Your task to perform on an android device: Add macbook pro 13 inch to the cart on walmart.com Image 0: 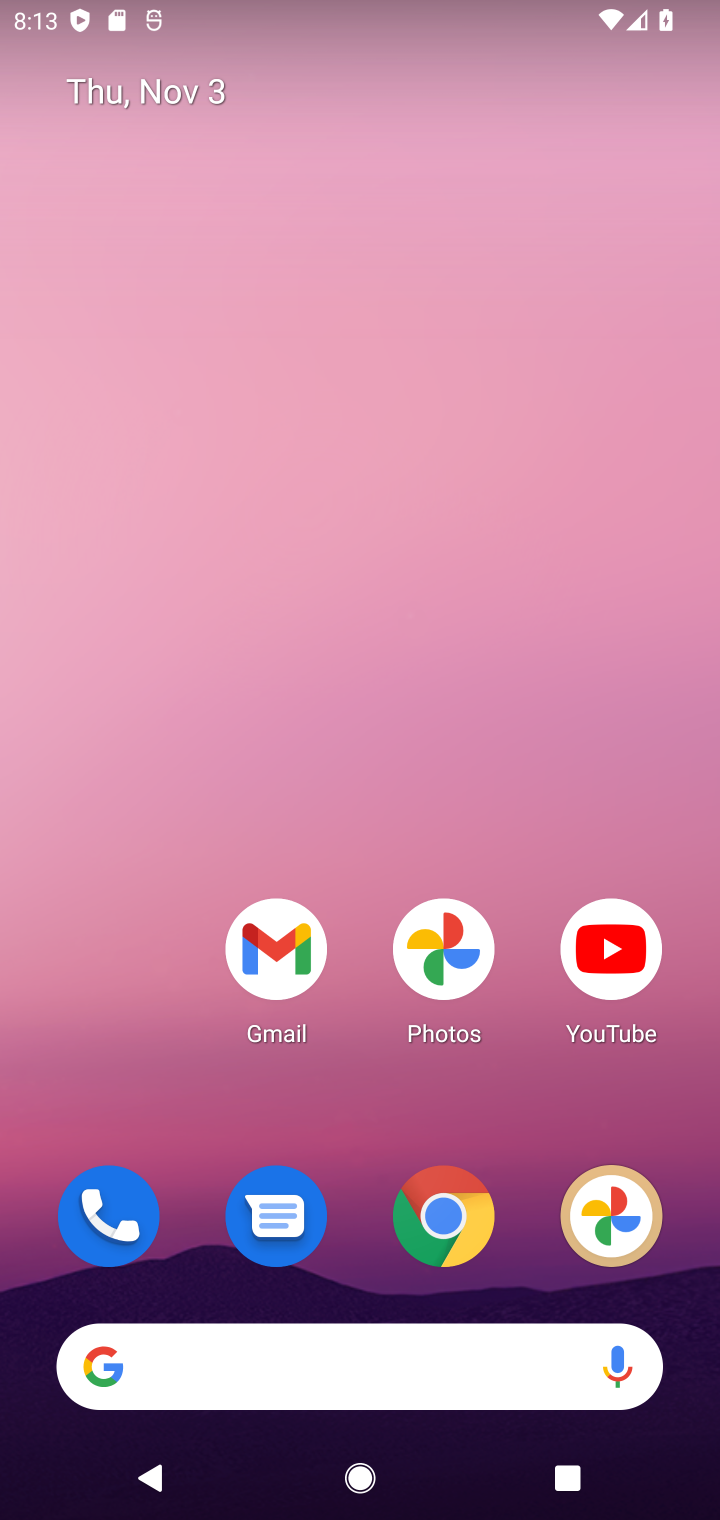
Step 0: click (447, 1240)
Your task to perform on an android device: Add macbook pro 13 inch to the cart on walmart.com Image 1: 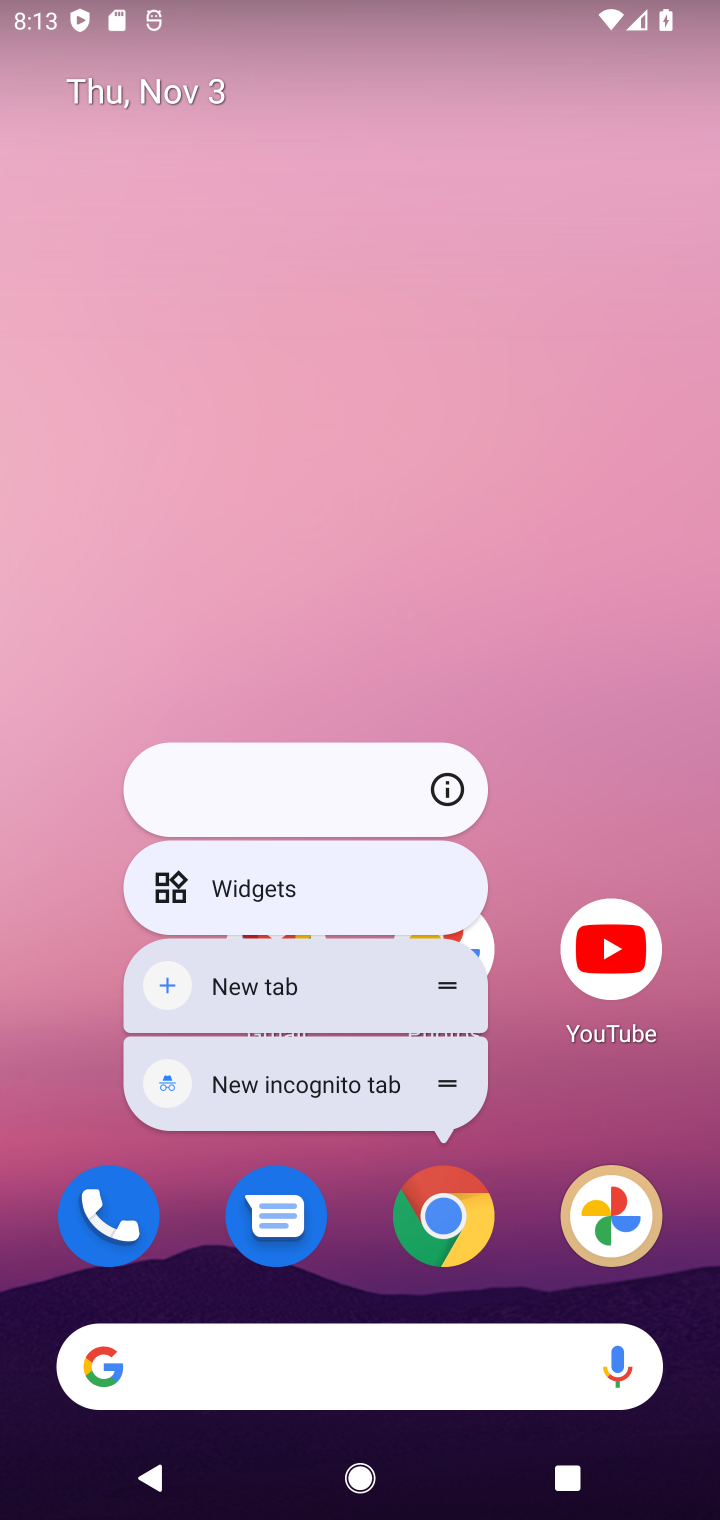
Step 1: click (459, 1239)
Your task to perform on an android device: Add macbook pro 13 inch to the cart on walmart.com Image 2: 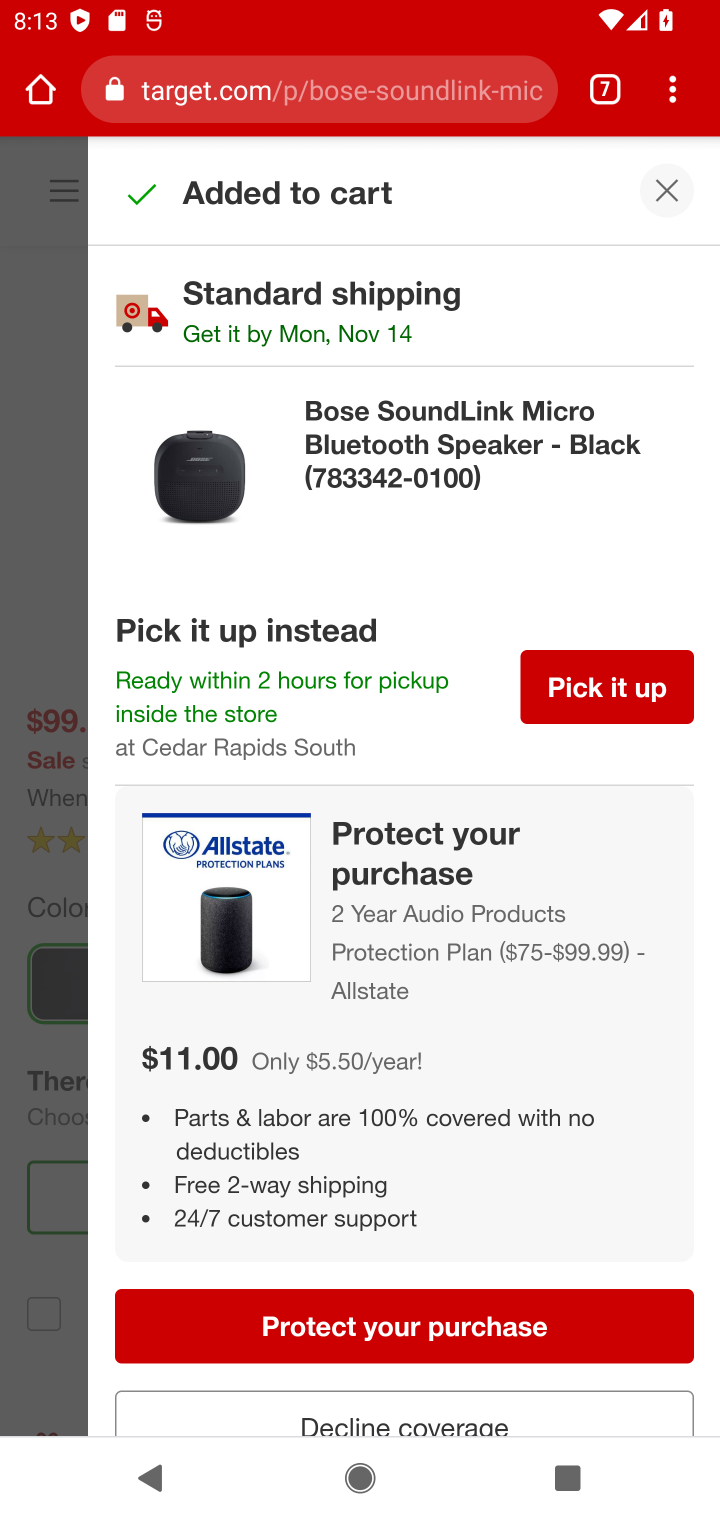
Step 2: click (600, 78)
Your task to perform on an android device: Add macbook pro 13 inch to the cart on walmart.com Image 3: 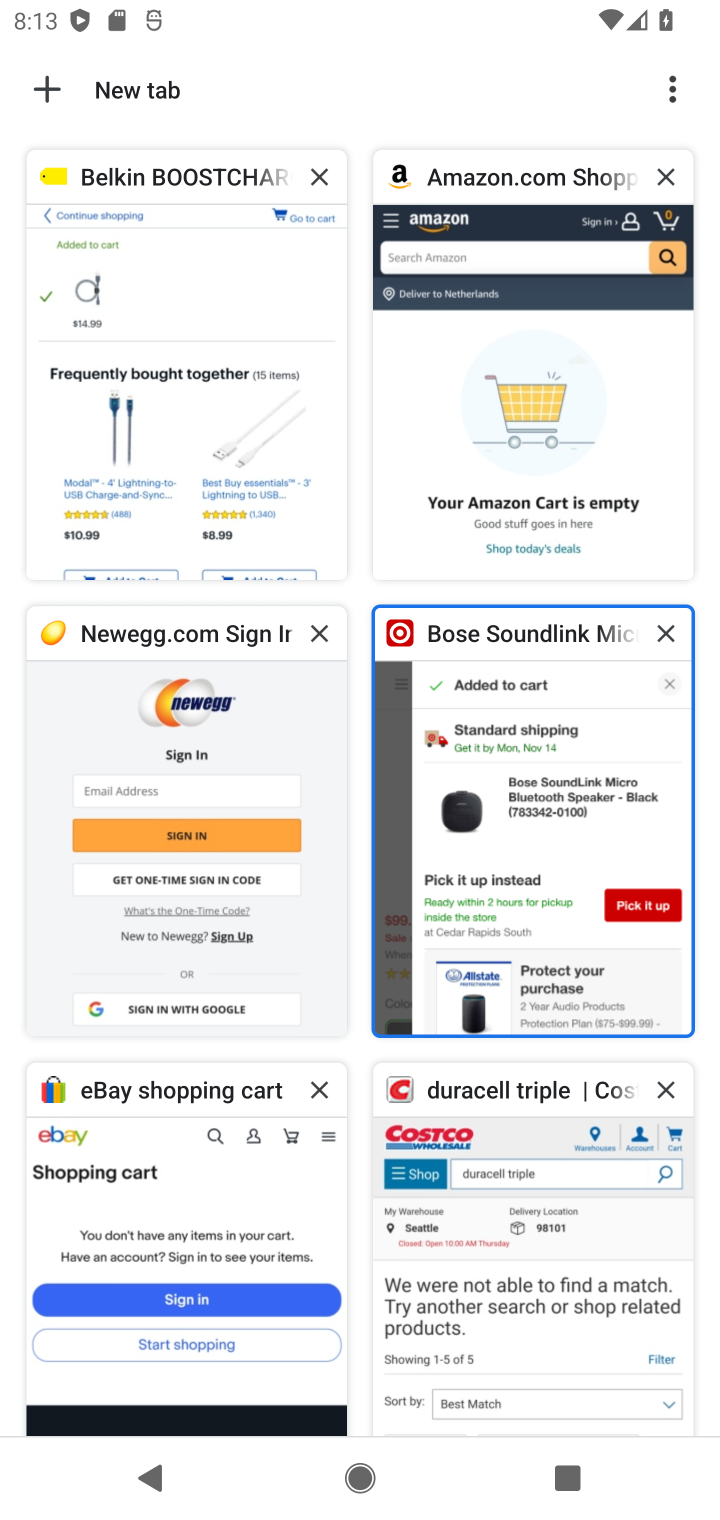
Step 3: drag from (358, 1306) to (290, 731)
Your task to perform on an android device: Add macbook pro 13 inch to the cart on walmart.com Image 4: 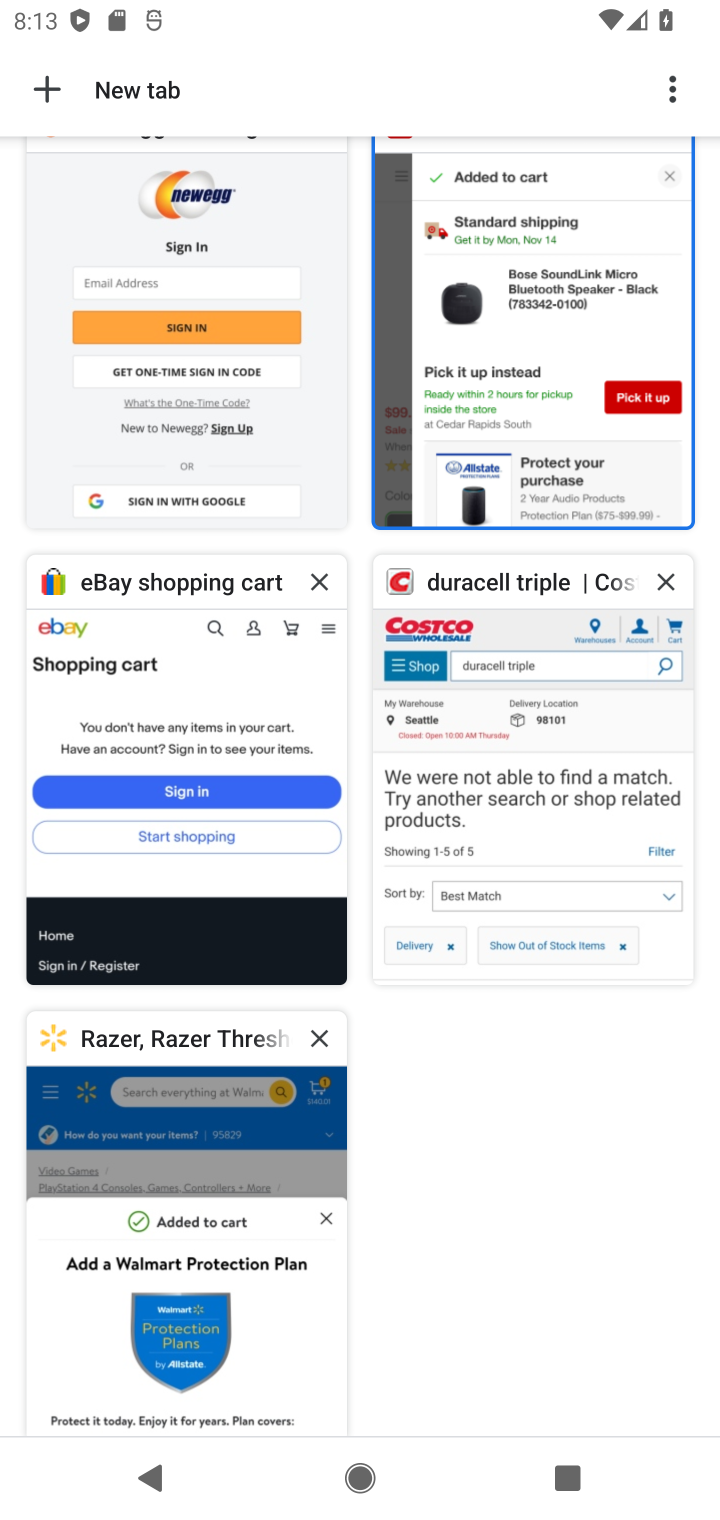
Step 4: click (198, 1184)
Your task to perform on an android device: Add macbook pro 13 inch to the cart on walmart.com Image 5: 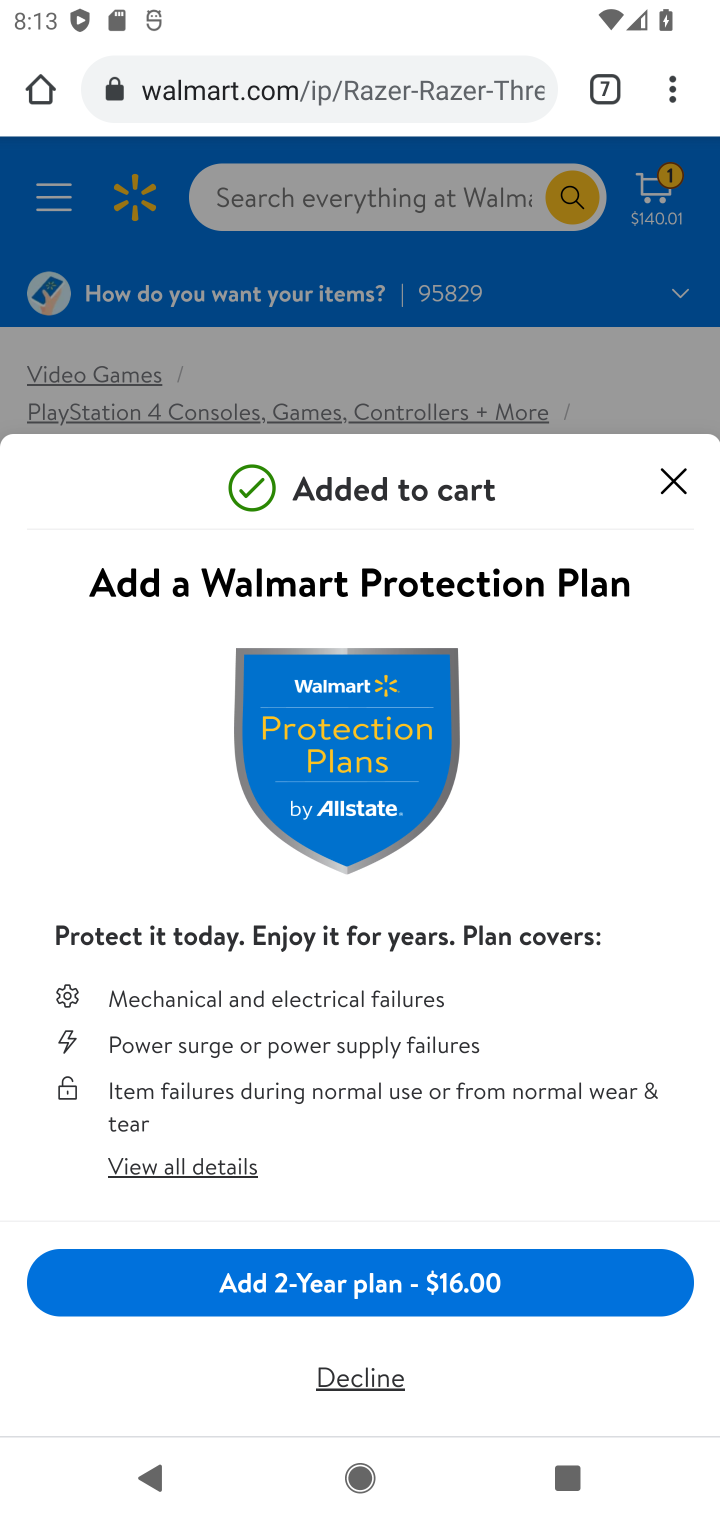
Step 5: click (473, 193)
Your task to perform on an android device: Add macbook pro 13 inch to the cart on walmart.com Image 6: 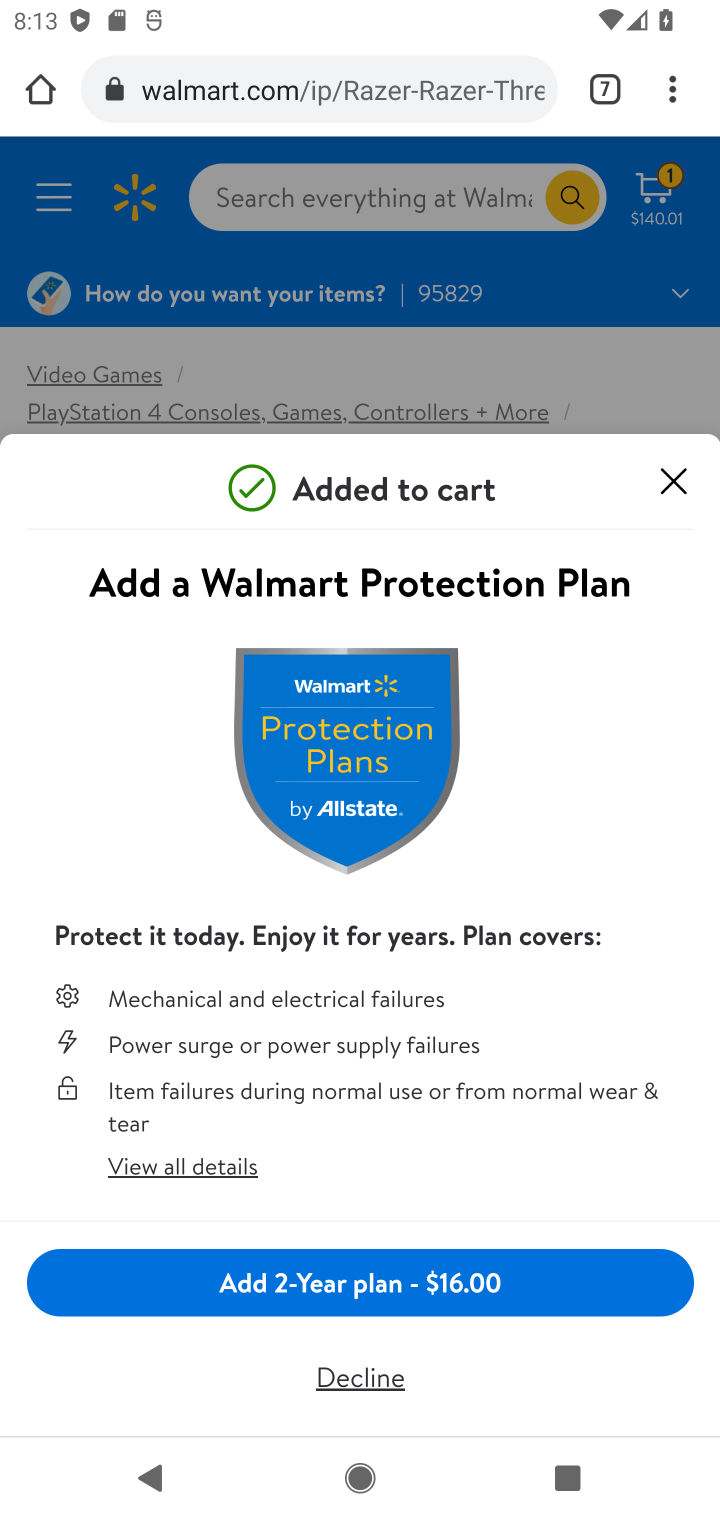
Step 6: click (675, 480)
Your task to perform on an android device: Add macbook pro 13 inch to the cart on walmart.com Image 7: 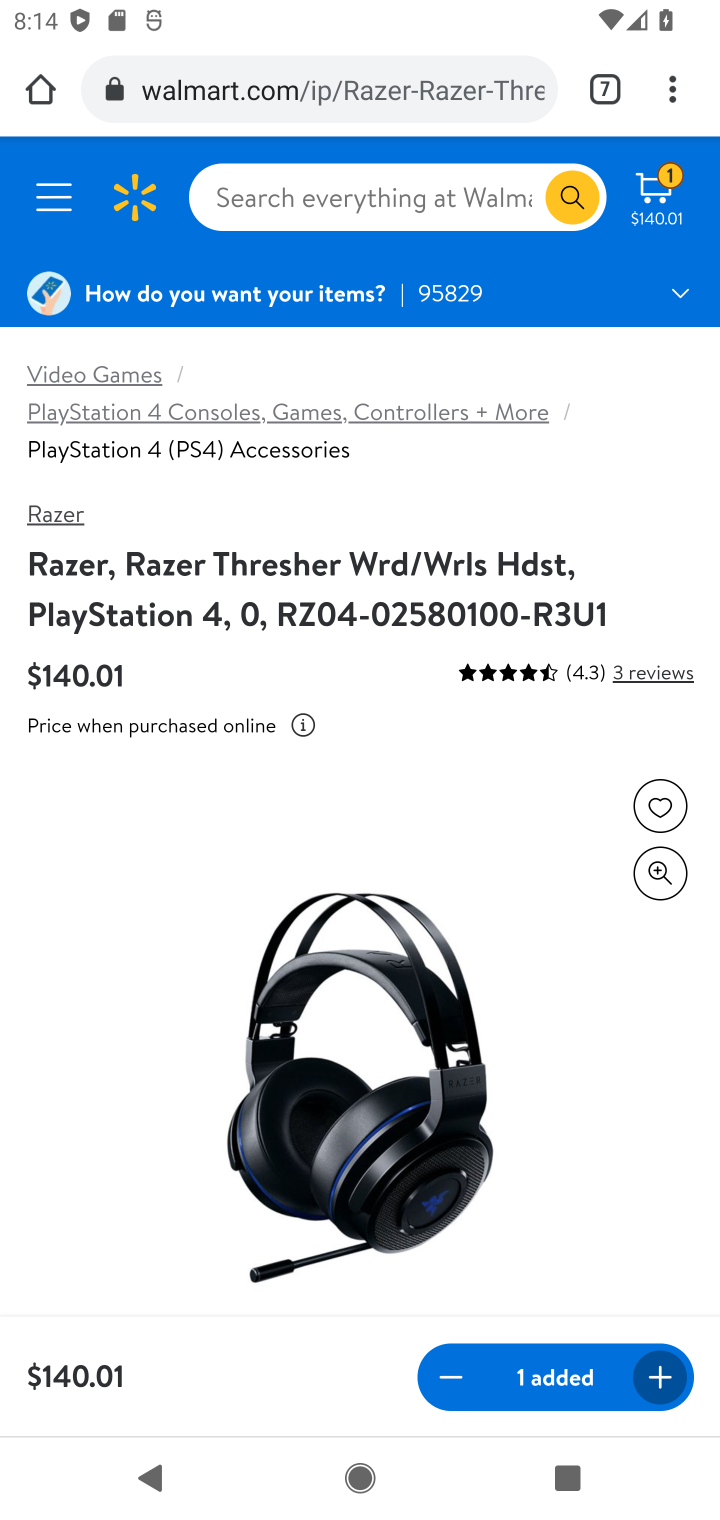
Step 7: click (365, 211)
Your task to perform on an android device: Add macbook pro 13 inch to the cart on walmart.com Image 8: 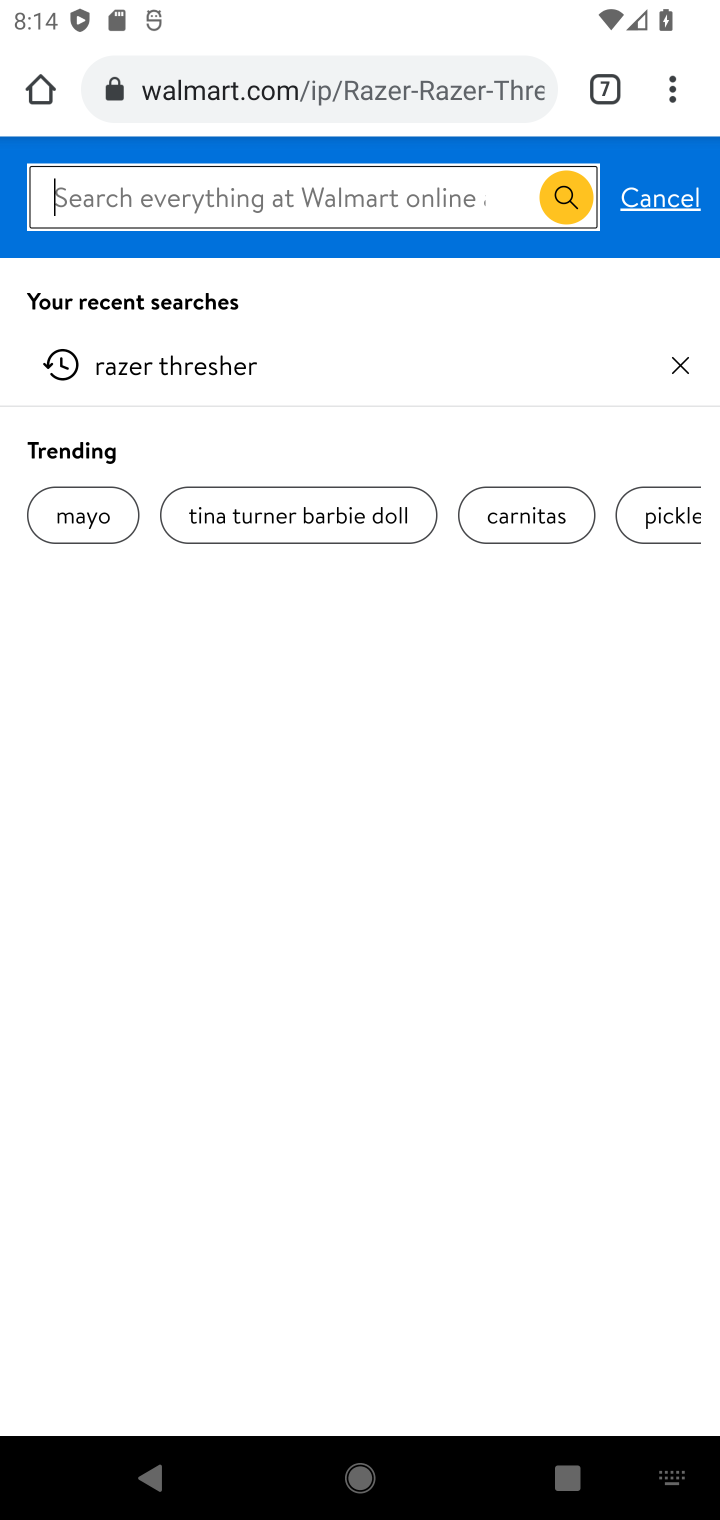
Step 8: type "macbook pro 13 inch "
Your task to perform on an android device: Add macbook pro 13 inch to the cart on walmart.com Image 9: 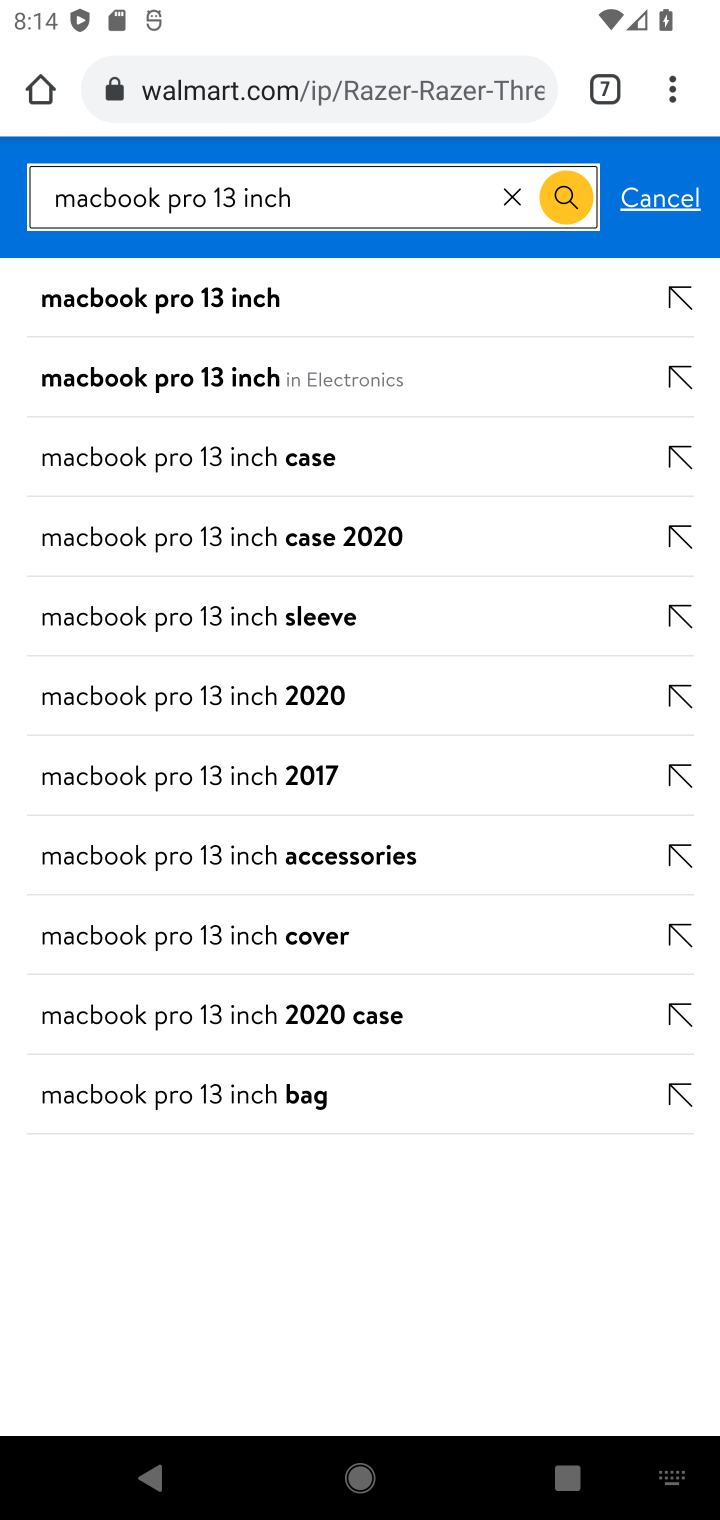
Step 9: click (236, 305)
Your task to perform on an android device: Add macbook pro 13 inch to the cart on walmart.com Image 10: 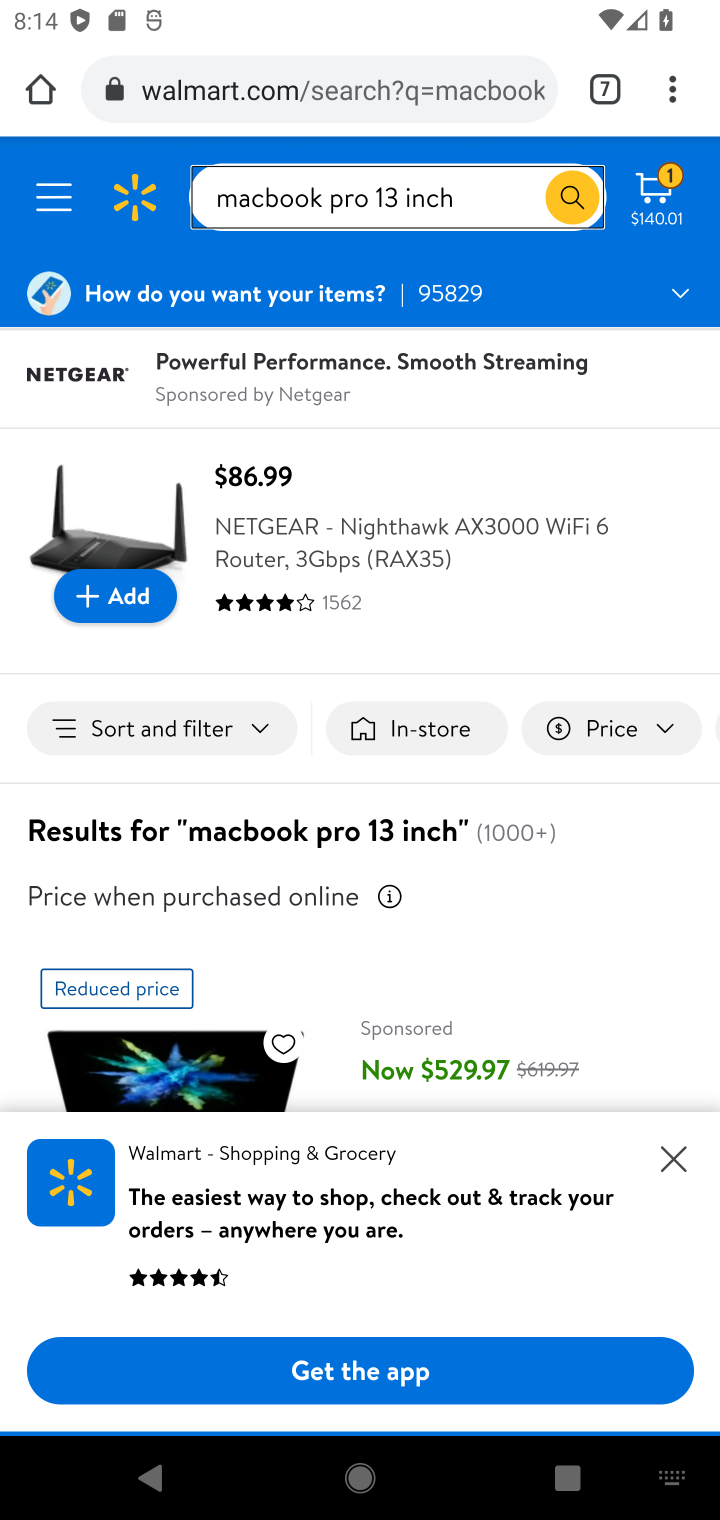
Step 10: drag from (396, 1073) to (340, 688)
Your task to perform on an android device: Add macbook pro 13 inch to the cart on walmart.com Image 11: 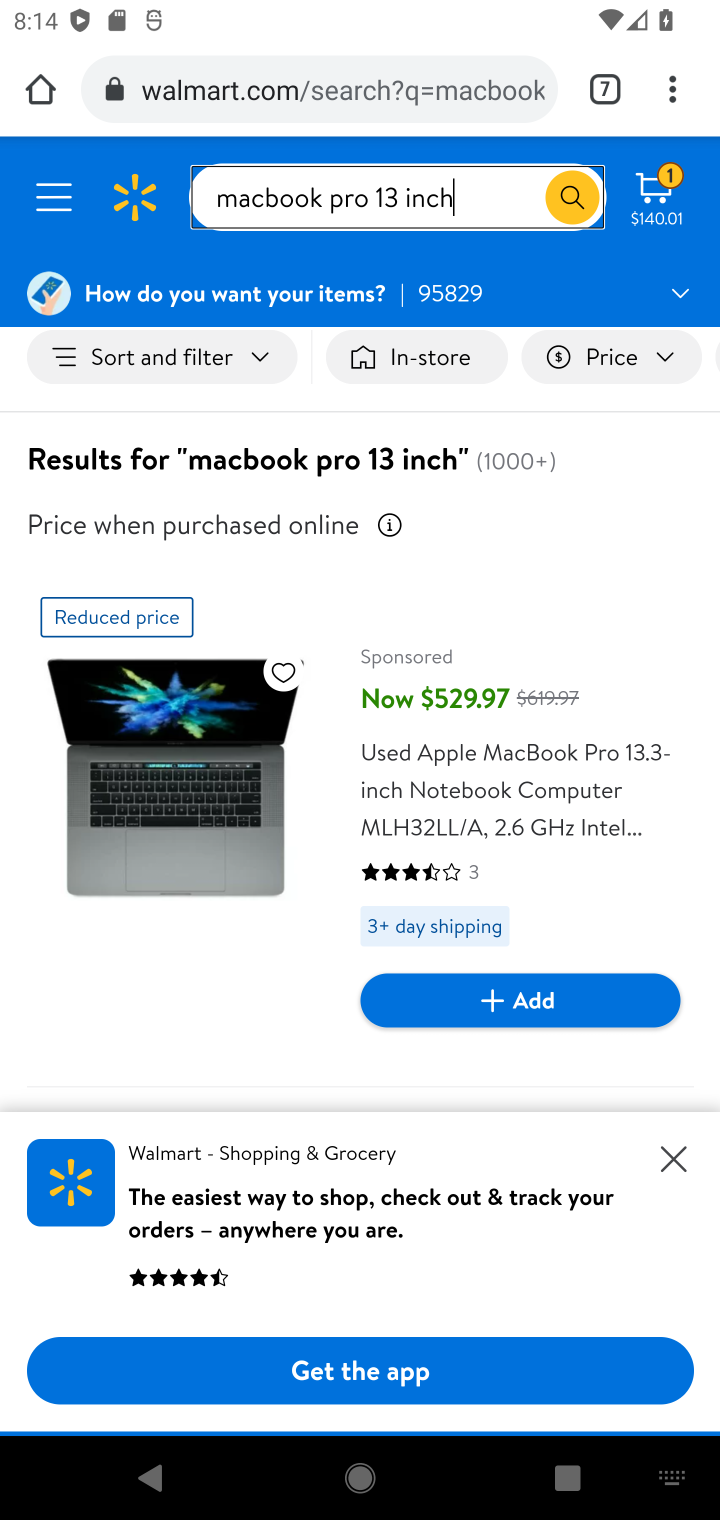
Step 11: drag from (241, 1026) to (182, 648)
Your task to perform on an android device: Add macbook pro 13 inch to the cart on walmart.com Image 12: 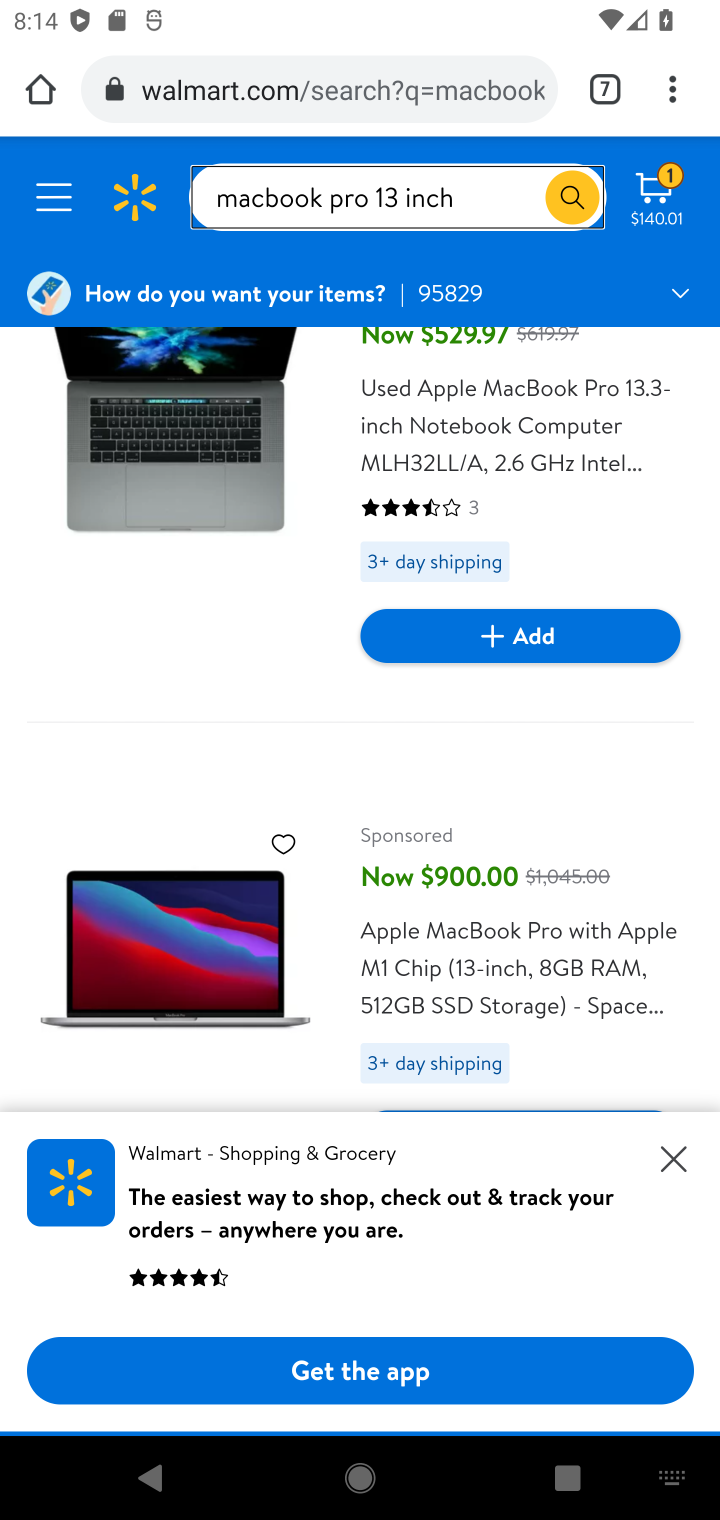
Step 12: drag from (572, 1045) to (537, 779)
Your task to perform on an android device: Add macbook pro 13 inch to the cart on walmart.com Image 13: 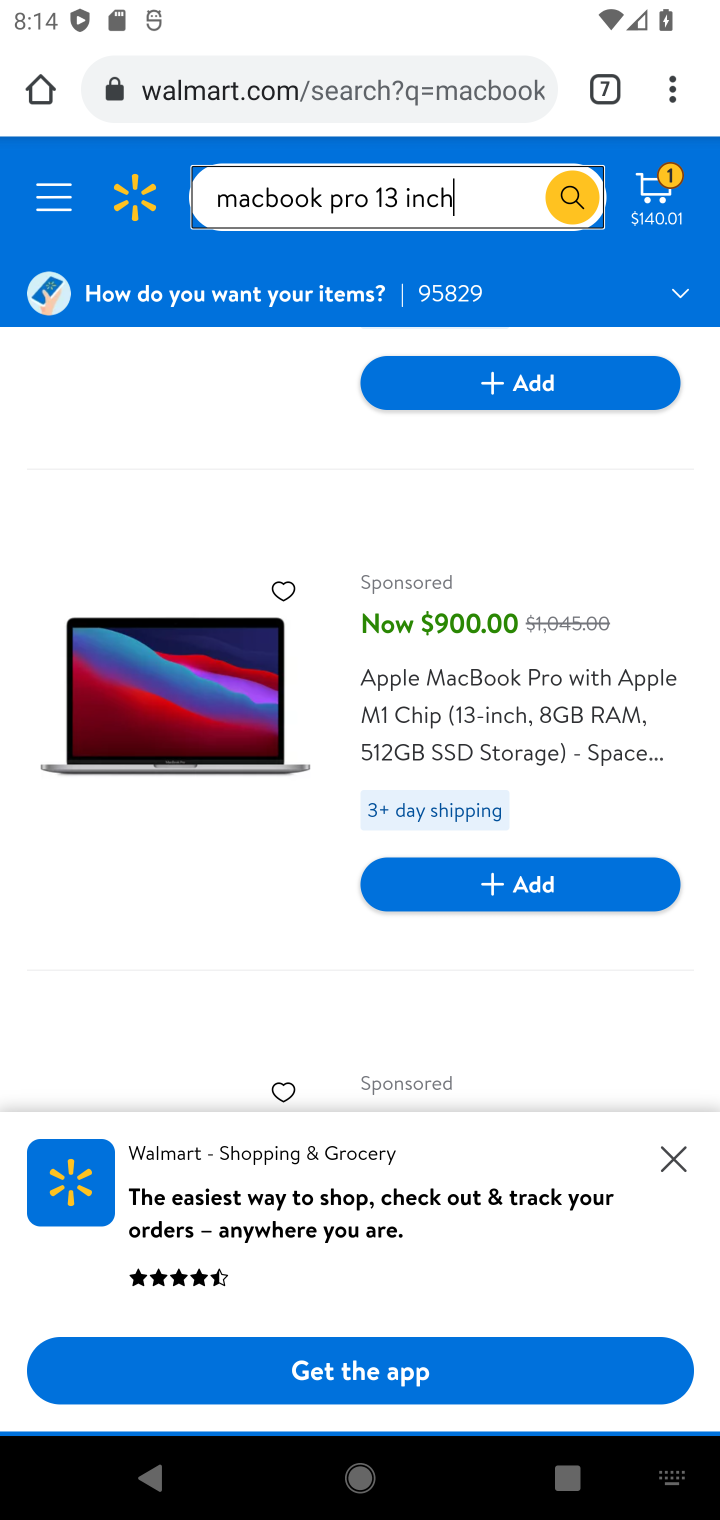
Step 13: click (529, 881)
Your task to perform on an android device: Add macbook pro 13 inch to the cart on walmart.com Image 14: 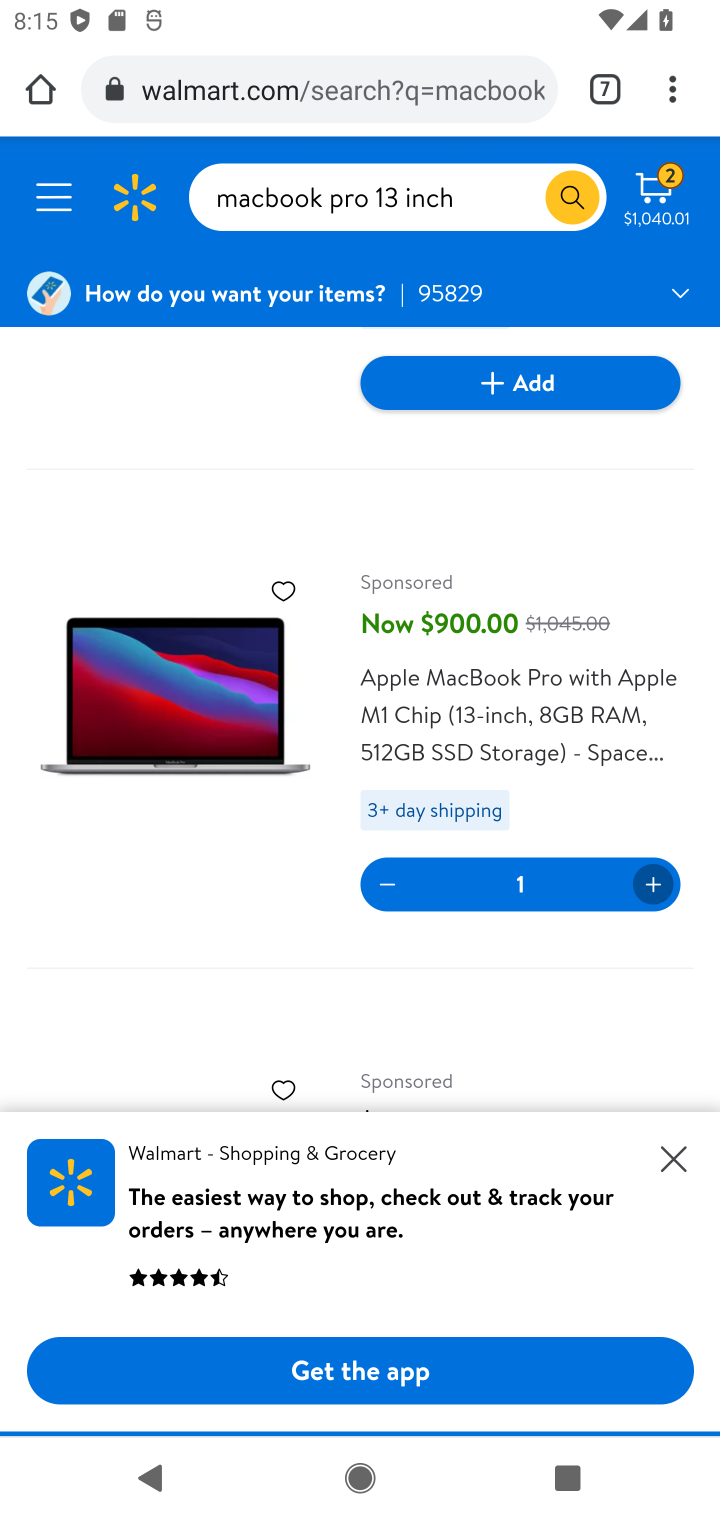
Step 14: task complete